Your task to perform on an android device: delete location history Image 0: 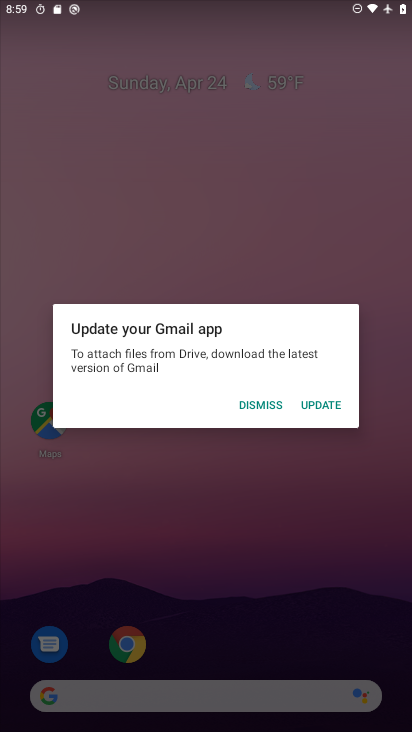
Step 0: press home button
Your task to perform on an android device: delete location history Image 1: 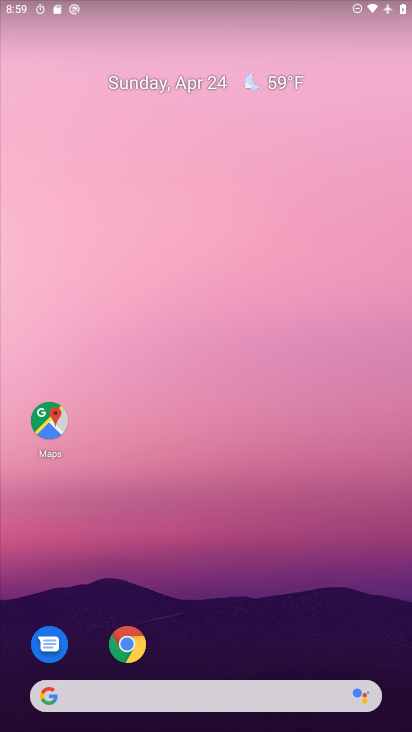
Step 1: drag from (205, 649) to (219, 78)
Your task to perform on an android device: delete location history Image 2: 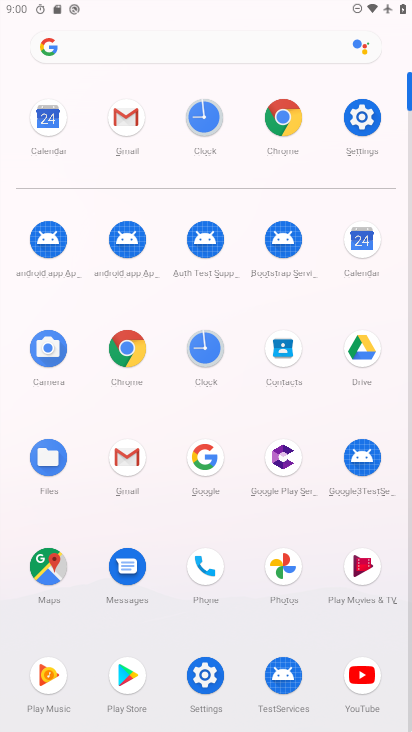
Step 2: click (47, 565)
Your task to perform on an android device: delete location history Image 3: 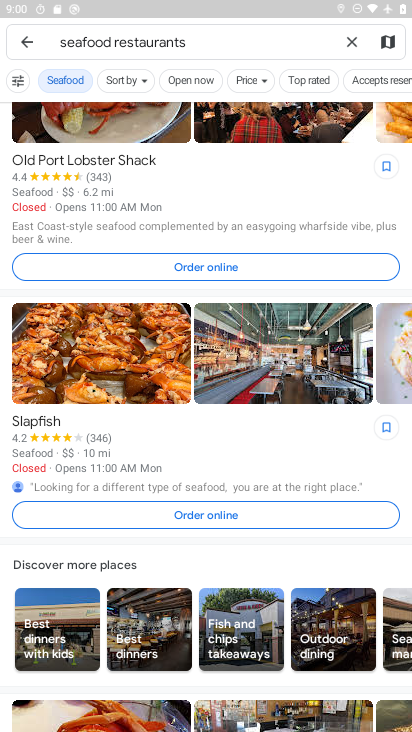
Step 3: click (27, 39)
Your task to perform on an android device: delete location history Image 4: 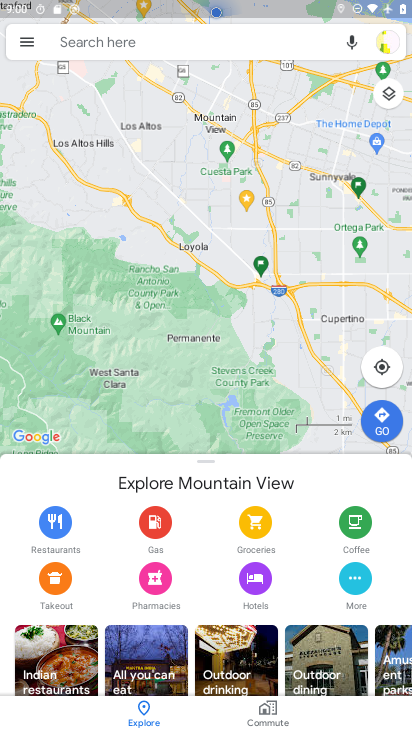
Step 4: click (26, 43)
Your task to perform on an android device: delete location history Image 5: 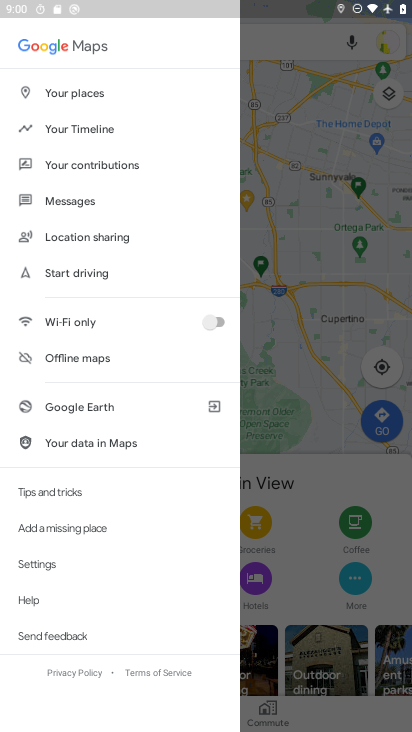
Step 5: click (116, 126)
Your task to perform on an android device: delete location history Image 6: 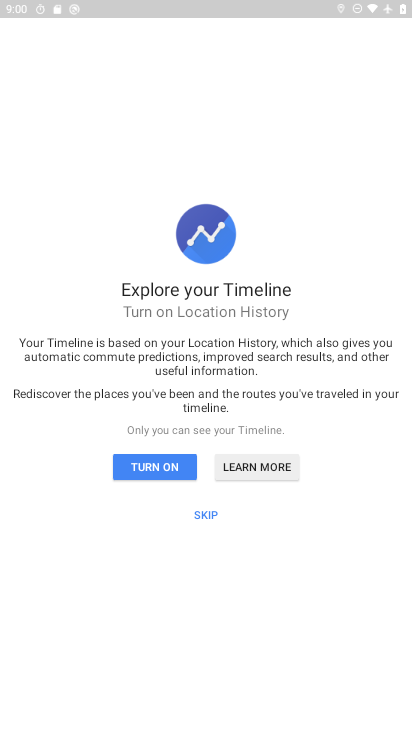
Step 6: click (157, 463)
Your task to perform on an android device: delete location history Image 7: 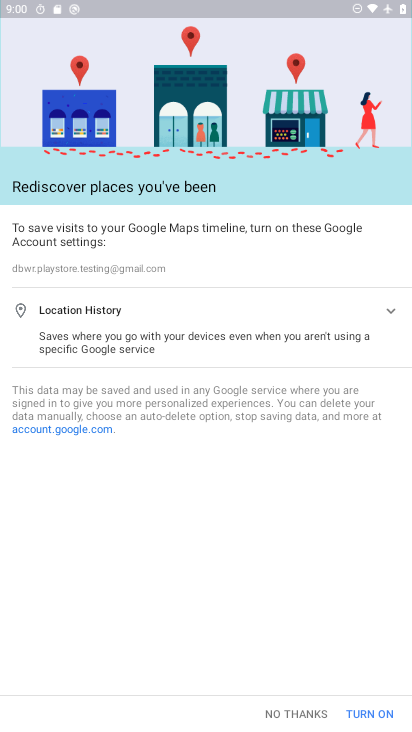
Step 7: click (367, 713)
Your task to perform on an android device: delete location history Image 8: 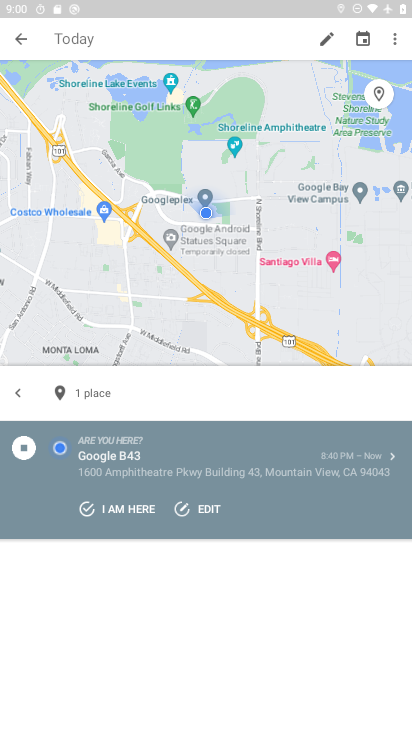
Step 8: click (25, 39)
Your task to perform on an android device: delete location history Image 9: 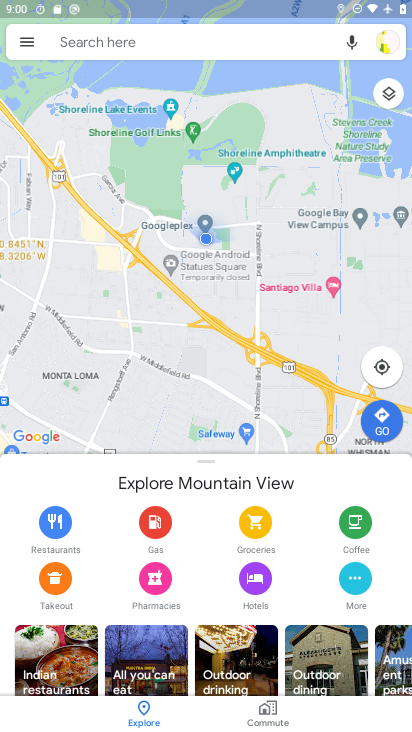
Step 9: click (25, 40)
Your task to perform on an android device: delete location history Image 10: 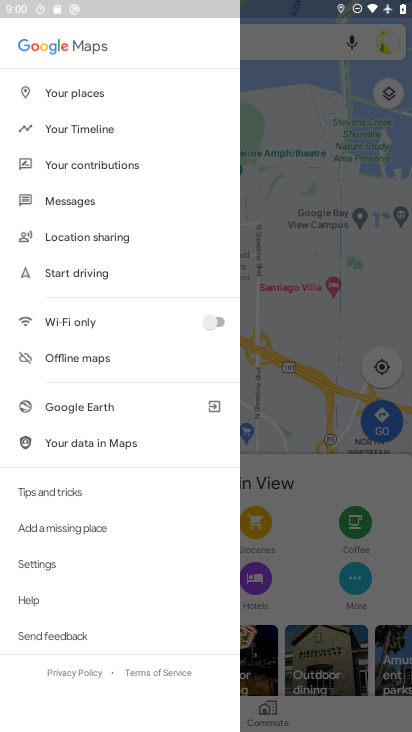
Step 10: click (86, 125)
Your task to perform on an android device: delete location history Image 11: 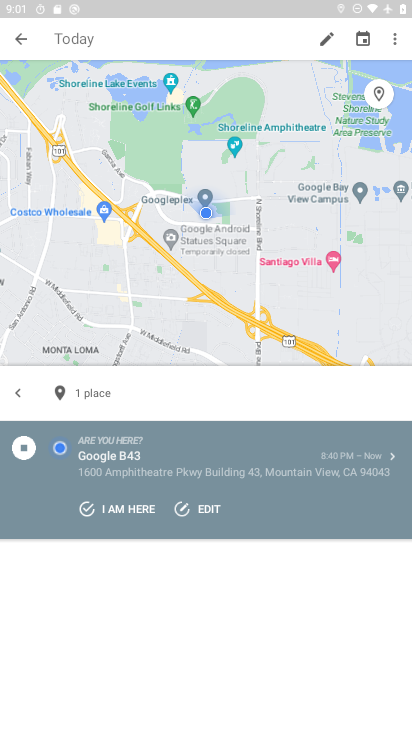
Step 11: click (396, 36)
Your task to perform on an android device: delete location history Image 12: 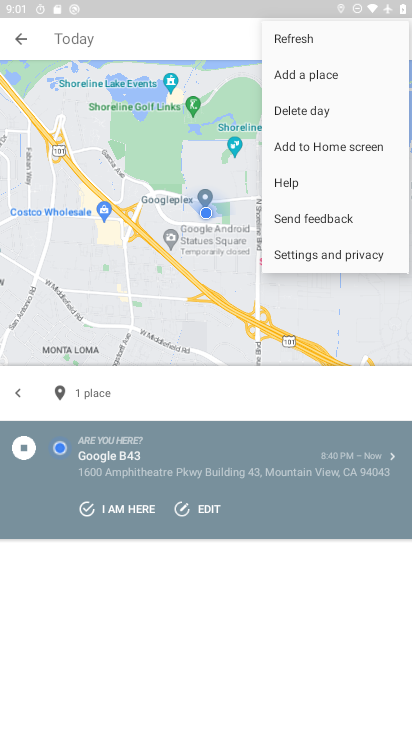
Step 12: click (319, 250)
Your task to perform on an android device: delete location history Image 13: 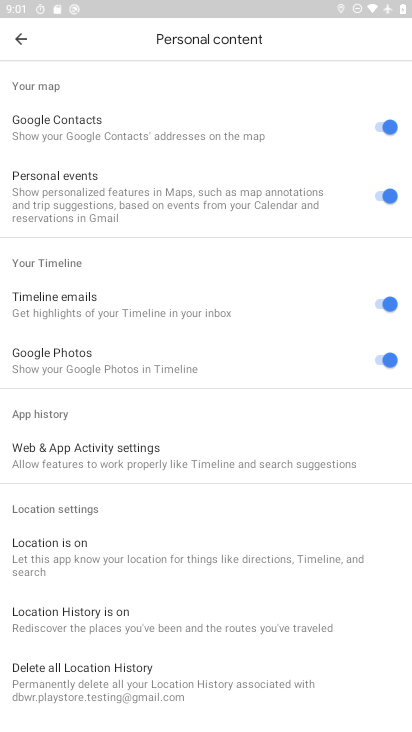
Step 13: click (167, 677)
Your task to perform on an android device: delete location history Image 14: 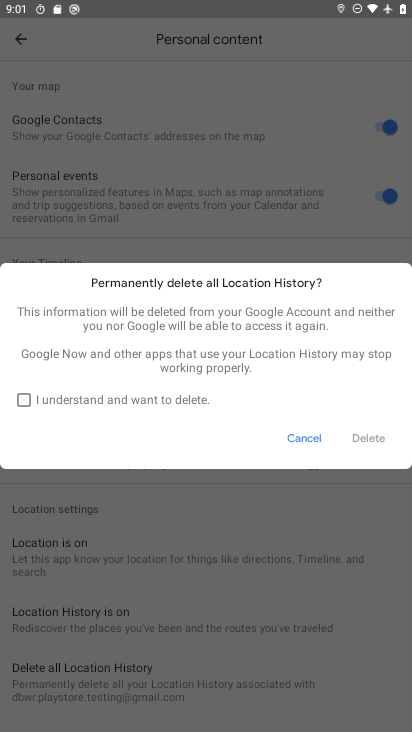
Step 14: click (17, 396)
Your task to perform on an android device: delete location history Image 15: 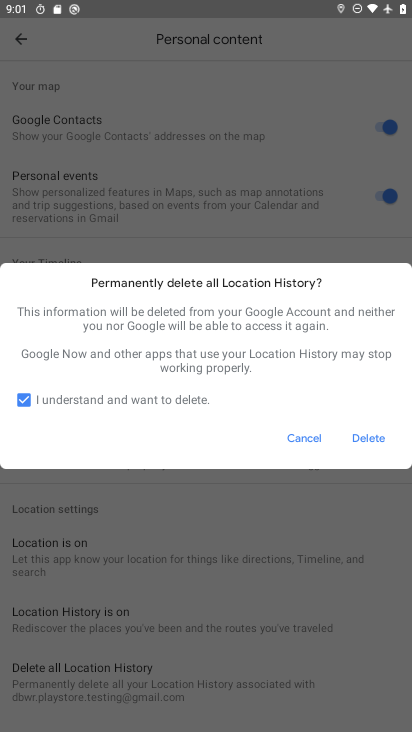
Step 15: click (371, 433)
Your task to perform on an android device: delete location history Image 16: 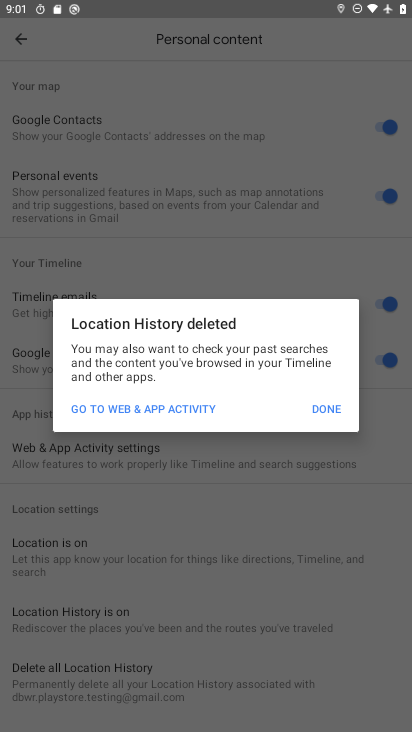
Step 16: click (320, 415)
Your task to perform on an android device: delete location history Image 17: 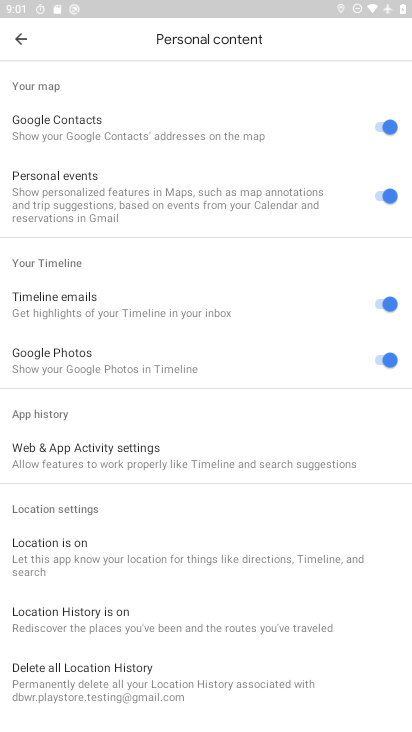
Step 17: task complete